Your task to perform on an android device: create a new album in the google photos Image 0: 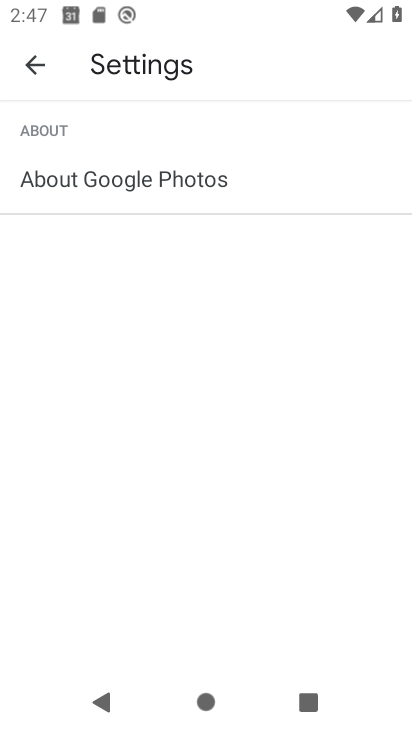
Step 0: press home button
Your task to perform on an android device: create a new album in the google photos Image 1: 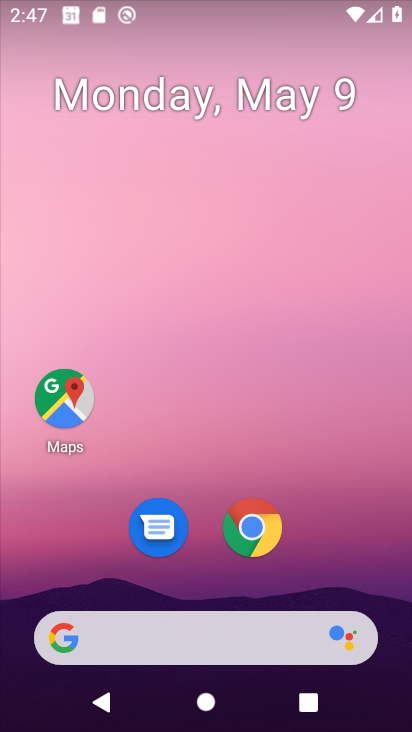
Step 1: drag from (203, 601) to (239, 53)
Your task to perform on an android device: create a new album in the google photos Image 2: 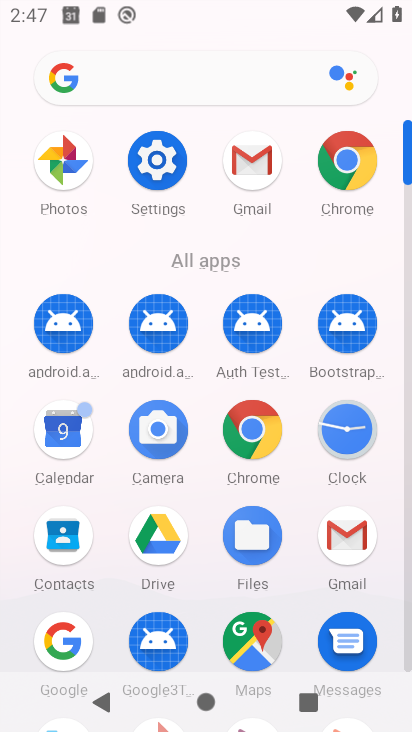
Step 2: drag from (291, 470) to (317, 106)
Your task to perform on an android device: create a new album in the google photos Image 3: 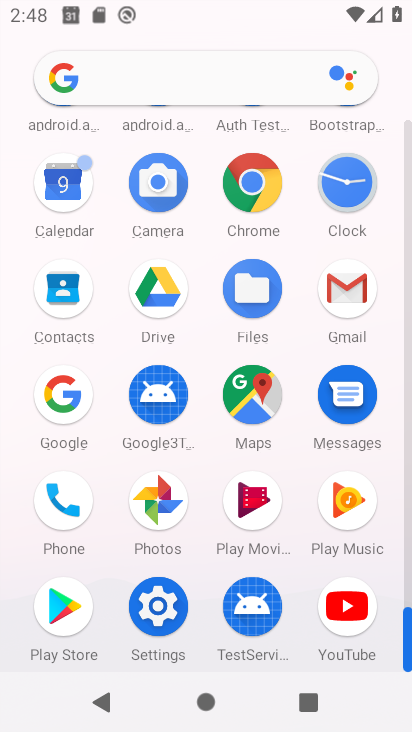
Step 3: click (156, 496)
Your task to perform on an android device: create a new album in the google photos Image 4: 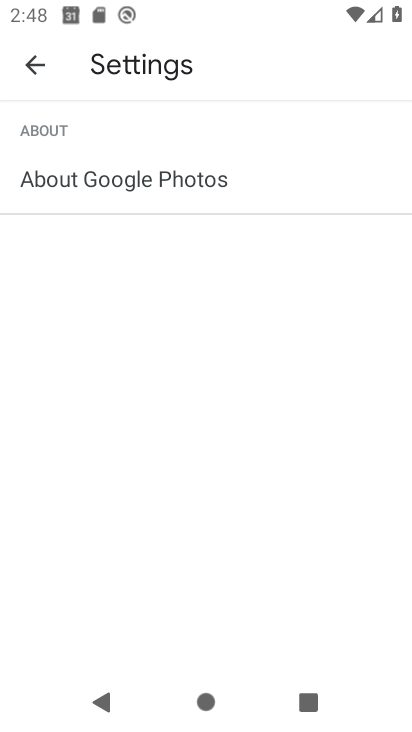
Step 4: click (29, 54)
Your task to perform on an android device: create a new album in the google photos Image 5: 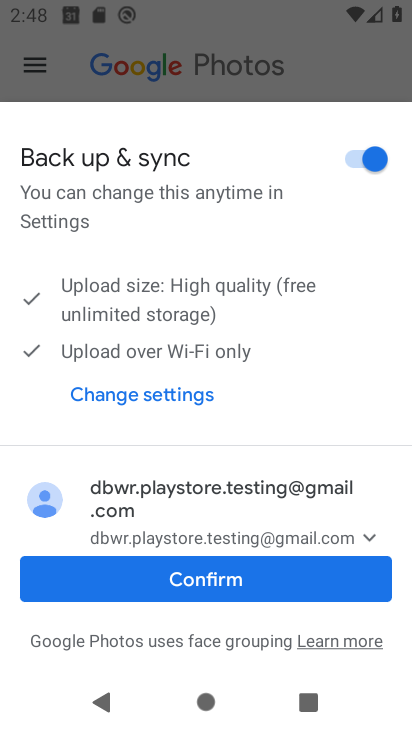
Step 5: click (186, 593)
Your task to perform on an android device: create a new album in the google photos Image 6: 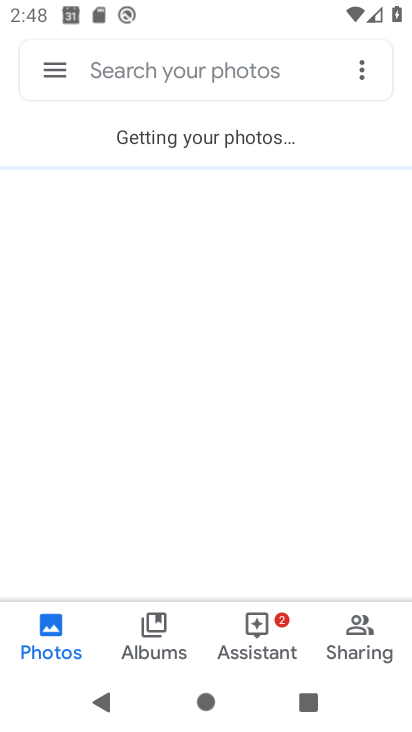
Step 6: click (175, 629)
Your task to perform on an android device: create a new album in the google photos Image 7: 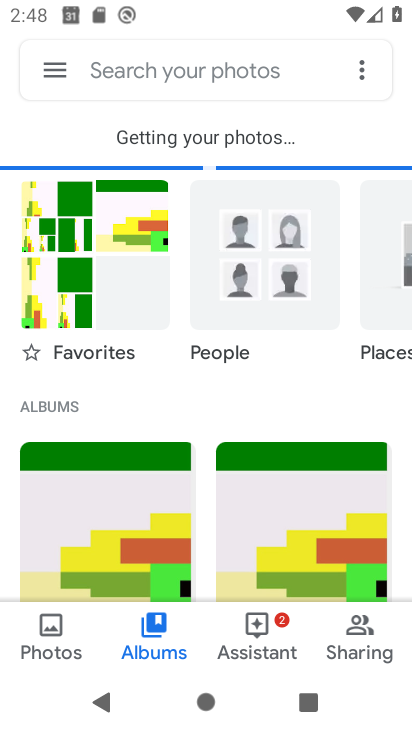
Step 7: drag from (115, 550) to (180, 228)
Your task to perform on an android device: create a new album in the google photos Image 8: 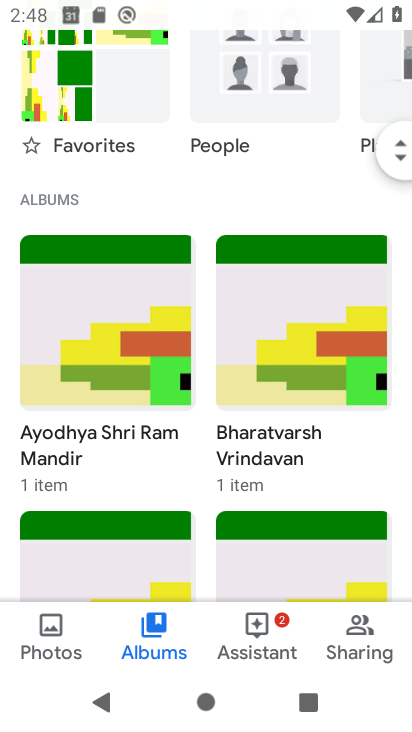
Step 8: drag from (96, 484) to (178, 150)
Your task to perform on an android device: create a new album in the google photos Image 9: 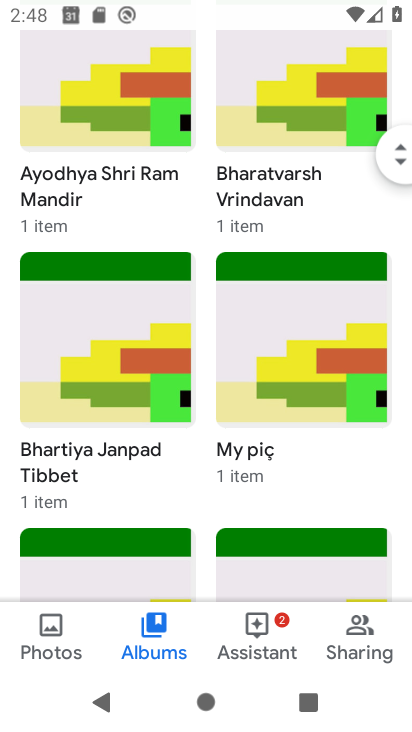
Step 9: drag from (190, 267) to (220, 163)
Your task to perform on an android device: create a new album in the google photos Image 10: 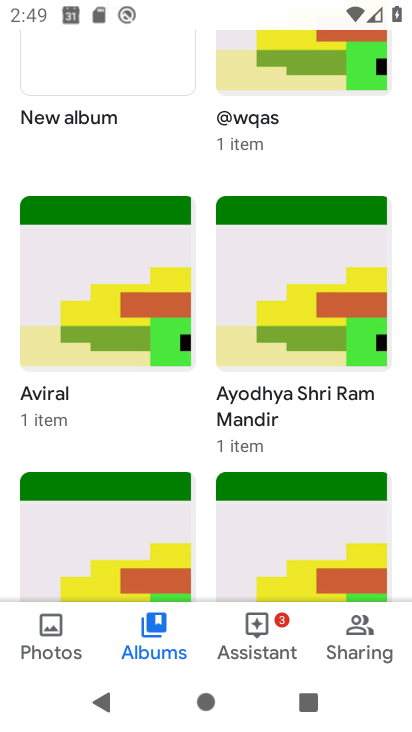
Step 10: drag from (142, 536) to (171, 16)
Your task to perform on an android device: create a new album in the google photos Image 11: 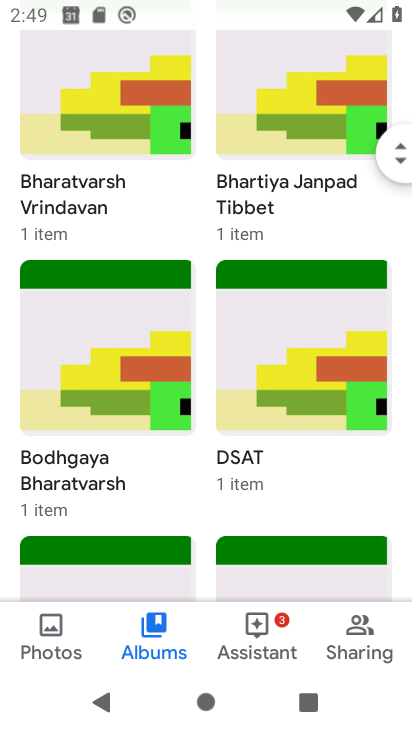
Step 11: drag from (115, 498) to (147, 47)
Your task to perform on an android device: create a new album in the google photos Image 12: 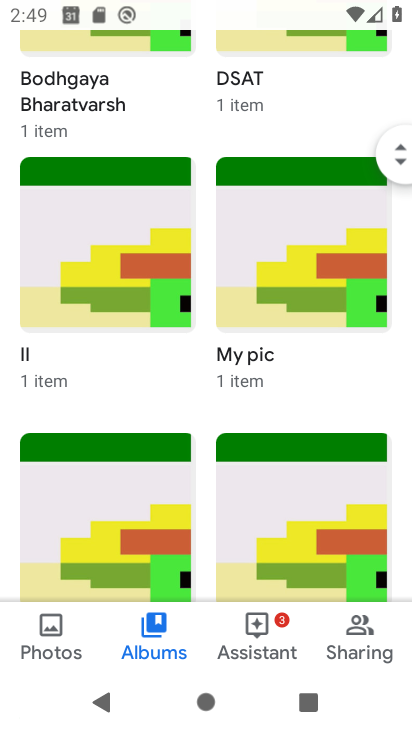
Step 12: drag from (81, 542) to (174, 125)
Your task to perform on an android device: create a new album in the google photos Image 13: 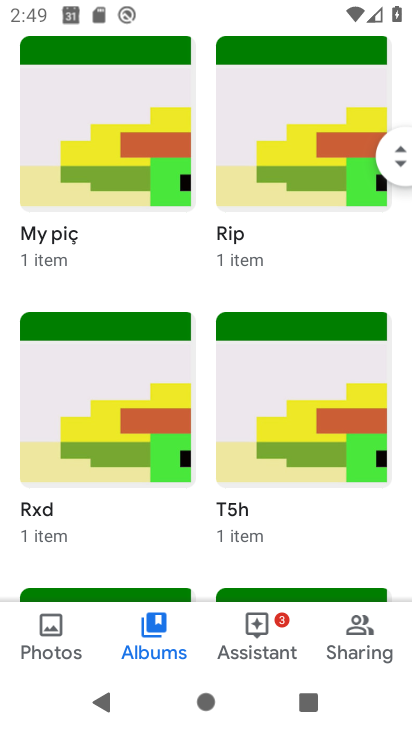
Step 13: drag from (394, 162) to (290, 730)
Your task to perform on an android device: create a new album in the google photos Image 14: 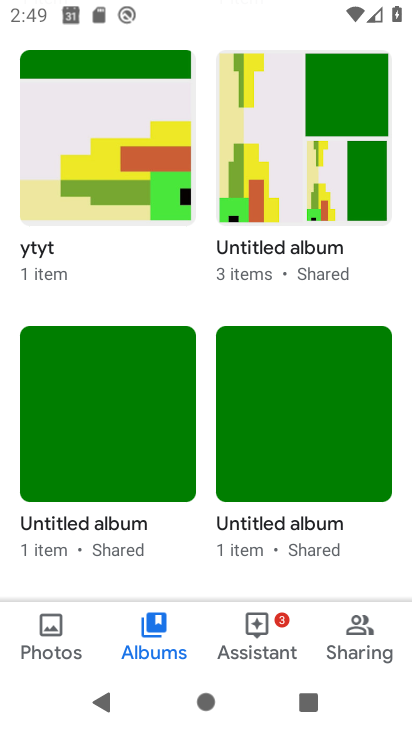
Step 14: drag from (391, 574) to (362, 651)
Your task to perform on an android device: create a new album in the google photos Image 15: 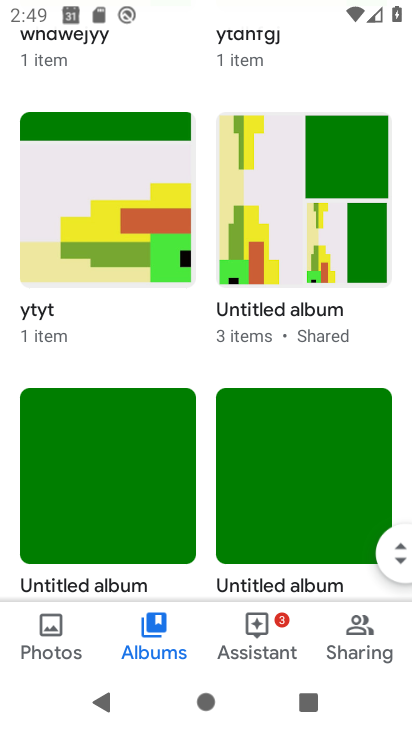
Step 15: drag from (391, 558) to (344, 696)
Your task to perform on an android device: create a new album in the google photos Image 16: 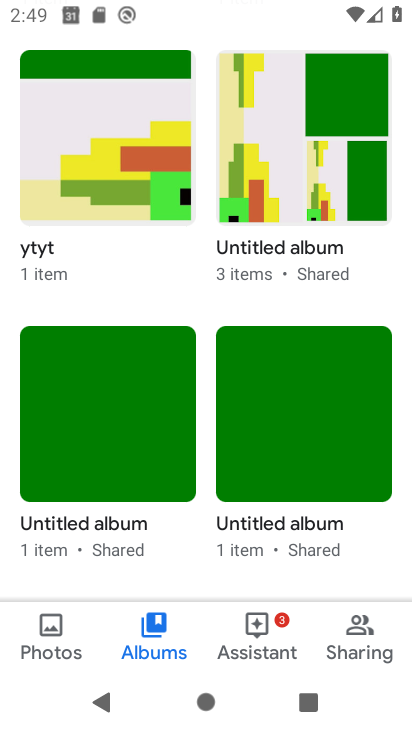
Step 16: drag from (359, 379) to (346, 591)
Your task to perform on an android device: create a new album in the google photos Image 17: 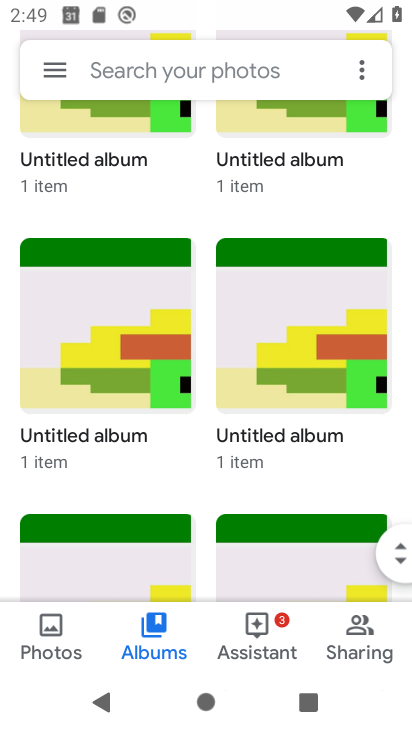
Step 17: drag from (402, 559) to (404, 55)
Your task to perform on an android device: create a new album in the google photos Image 18: 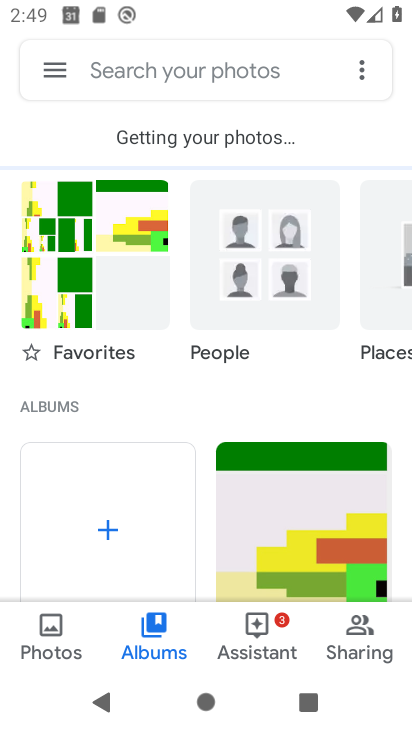
Step 18: drag from (349, 239) to (90, 267)
Your task to perform on an android device: create a new album in the google photos Image 19: 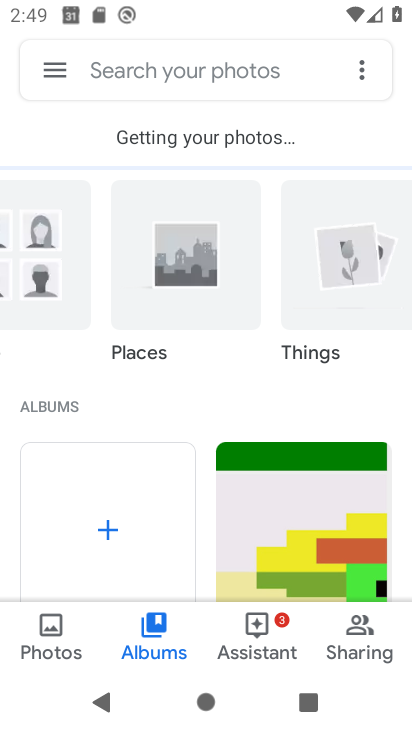
Step 19: click (126, 499)
Your task to perform on an android device: create a new album in the google photos Image 20: 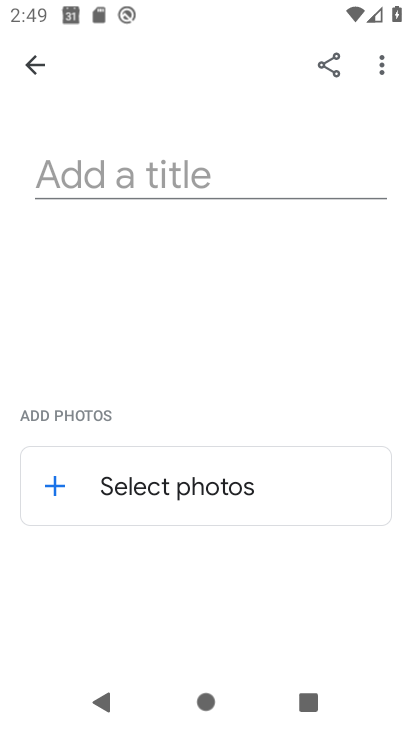
Step 20: click (208, 191)
Your task to perform on an android device: create a new album in the google photos Image 21: 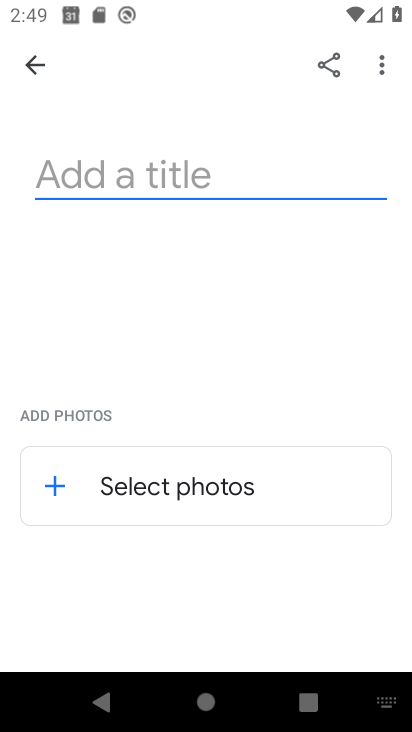
Step 21: type "ujjawal"
Your task to perform on an android device: create a new album in the google photos Image 22: 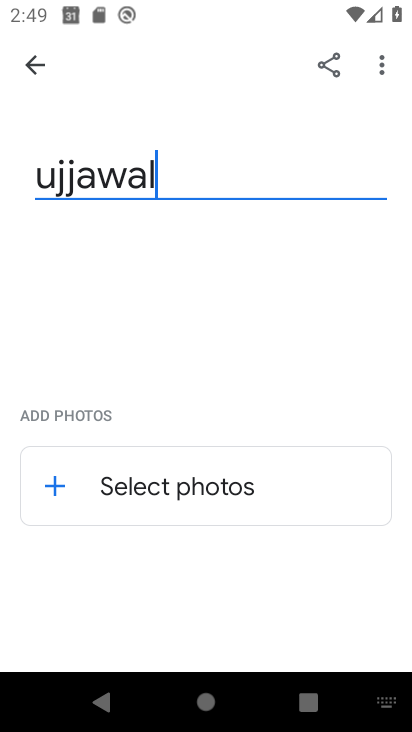
Step 22: click (43, 498)
Your task to perform on an android device: create a new album in the google photos Image 23: 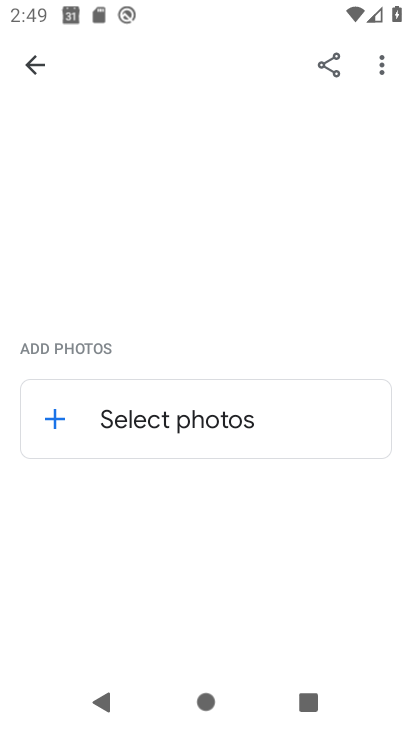
Step 23: click (63, 407)
Your task to perform on an android device: create a new album in the google photos Image 24: 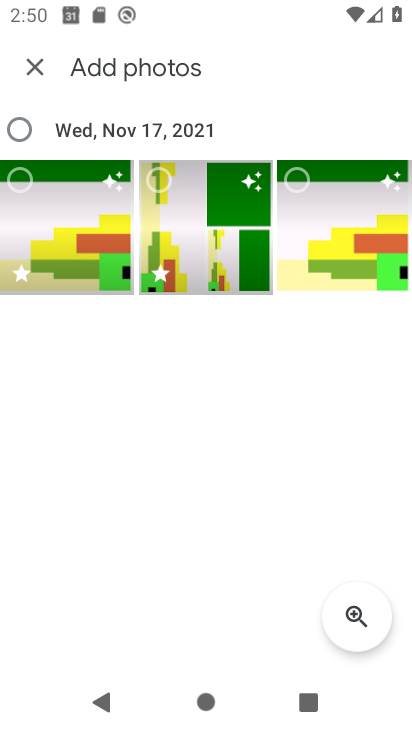
Step 24: click (25, 192)
Your task to perform on an android device: create a new album in the google photos Image 25: 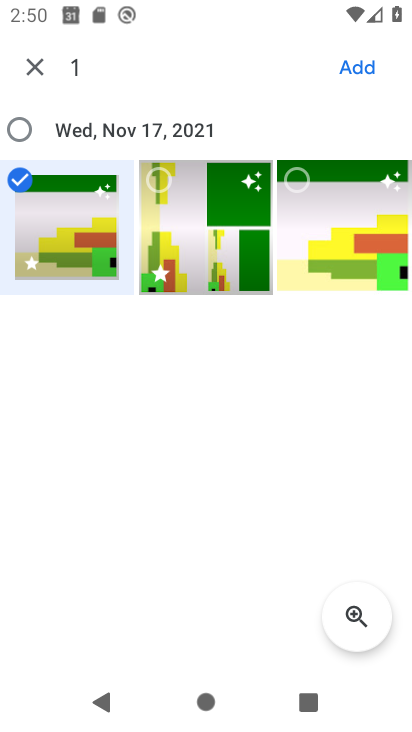
Step 25: click (170, 178)
Your task to perform on an android device: create a new album in the google photos Image 26: 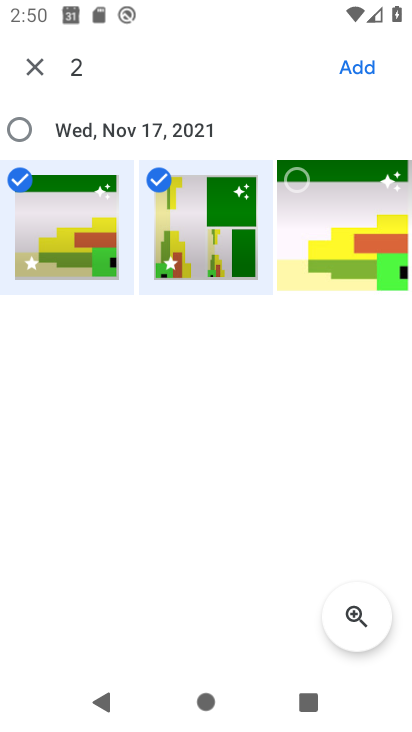
Step 26: click (357, 64)
Your task to perform on an android device: create a new album in the google photos Image 27: 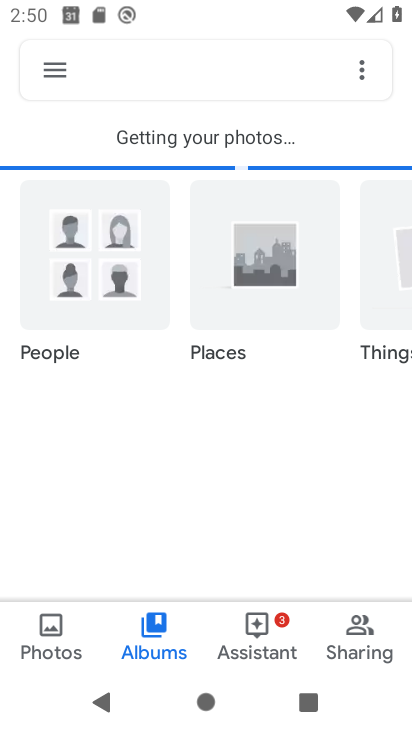
Step 27: task complete